Your task to perform on an android device: Open Chrome and go to settings Image 0: 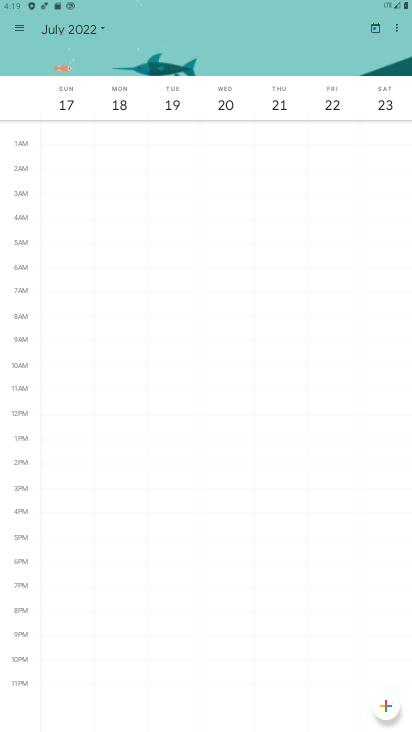
Step 0: press home button
Your task to perform on an android device: Open Chrome and go to settings Image 1: 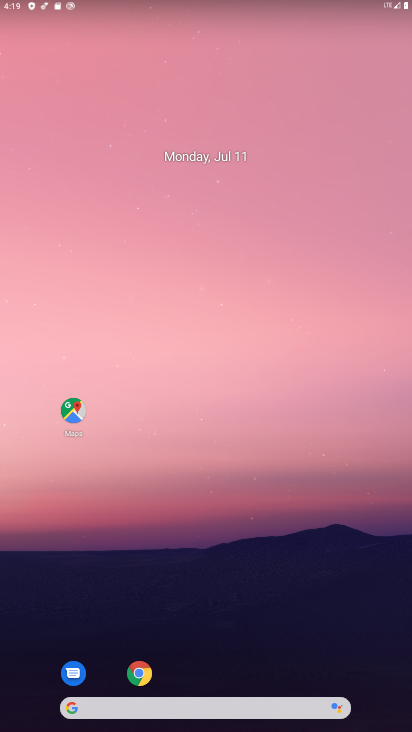
Step 1: drag from (350, 543) to (349, 130)
Your task to perform on an android device: Open Chrome and go to settings Image 2: 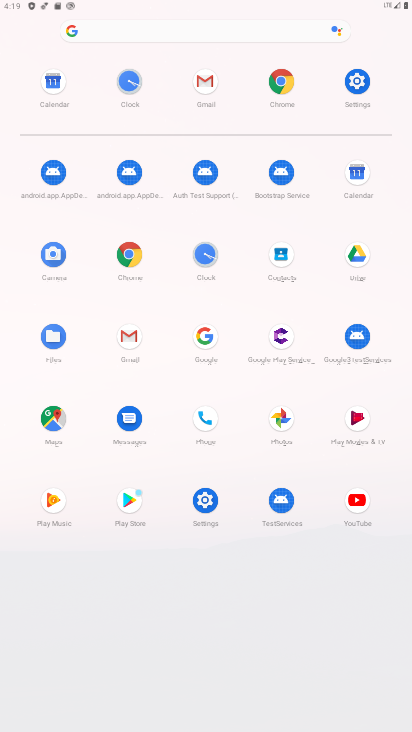
Step 2: click (127, 252)
Your task to perform on an android device: Open Chrome and go to settings Image 3: 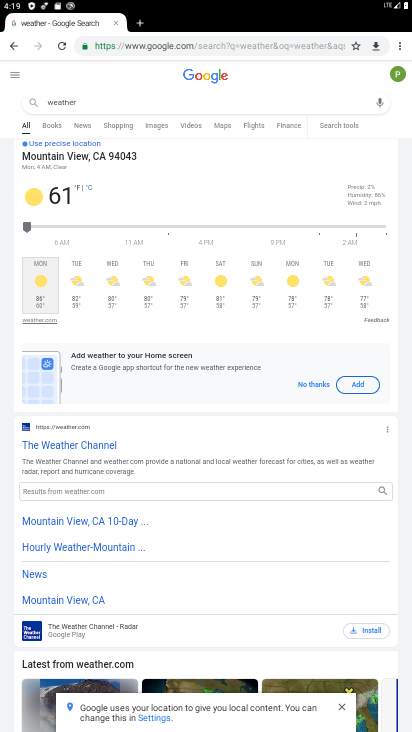
Step 3: task complete